Your task to perform on an android device: empty trash in the gmail app Image 0: 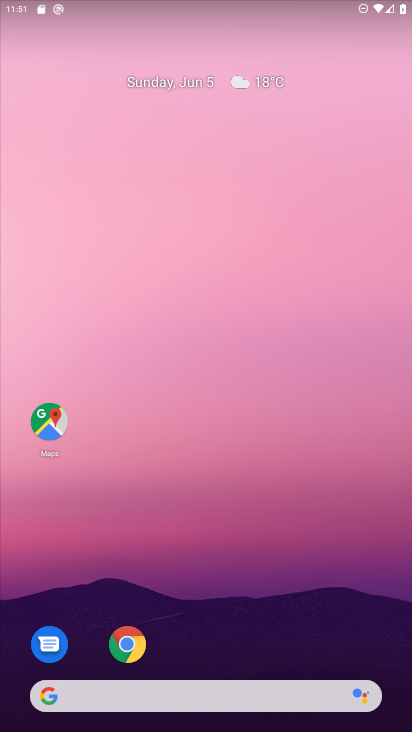
Step 0: drag from (280, 707) to (193, 276)
Your task to perform on an android device: empty trash in the gmail app Image 1: 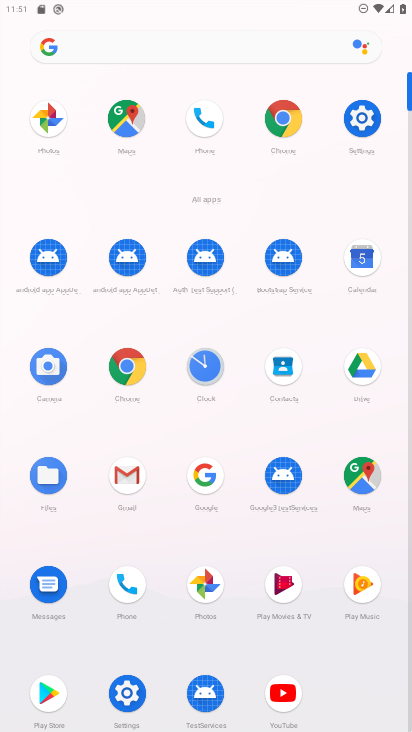
Step 1: click (140, 474)
Your task to perform on an android device: empty trash in the gmail app Image 2: 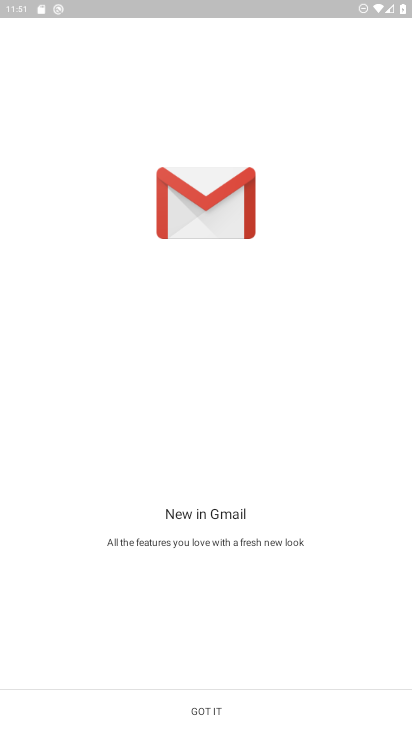
Step 2: click (248, 715)
Your task to perform on an android device: empty trash in the gmail app Image 3: 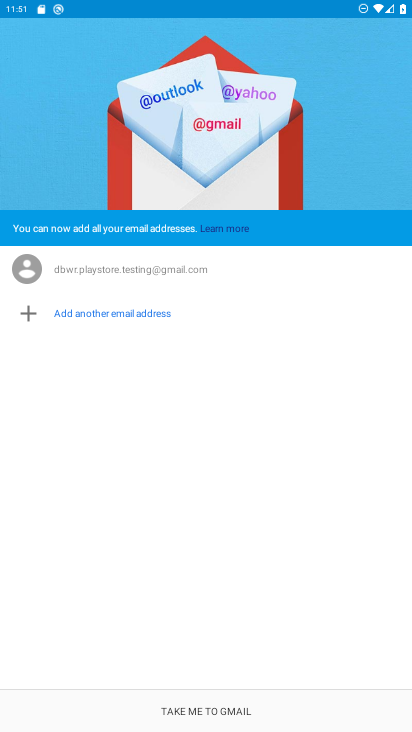
Step 3: click (242, 714)
Your task to perform on an android device: empty trash in the gmail app Image 4: 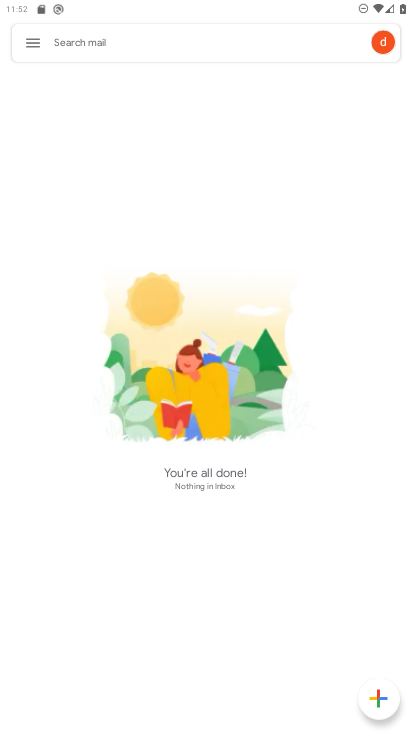
Step 4: click (23, 46)
Your task to perform on an android device: empty trash in the gmail app Image 5: 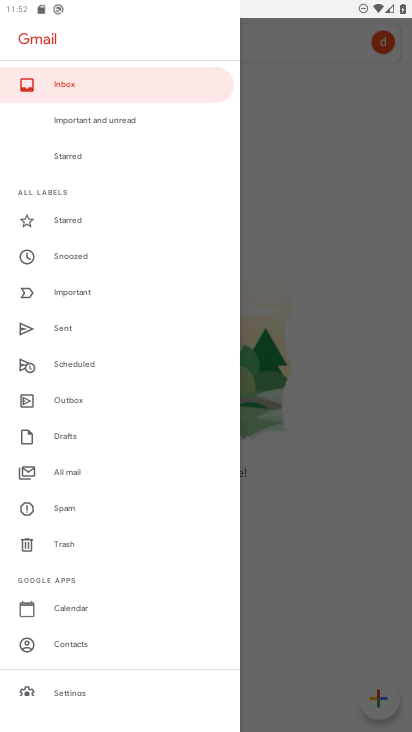
Step 5: click (69, 539)
Your task to perform on an android device: empty trash in the gmail app Image 6: 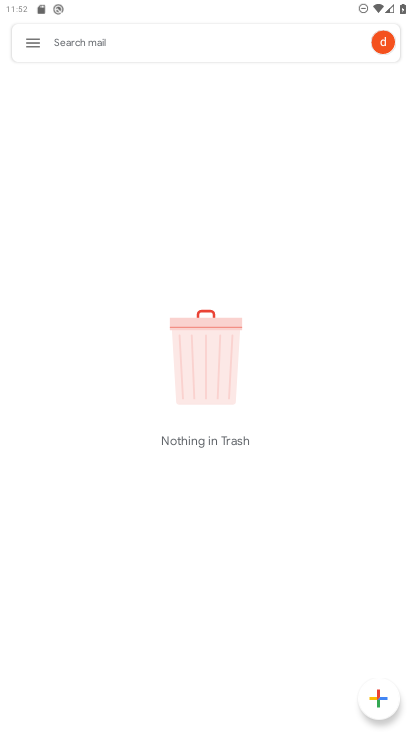
Step 6: task complete